Your task to perform on an android device: Go to privacy settings Image 0: 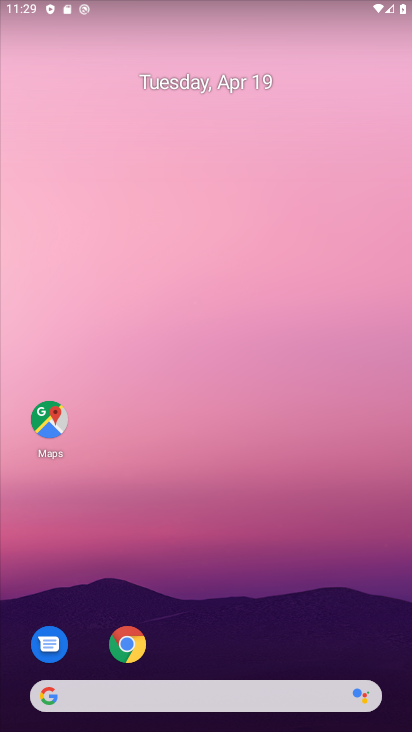
Step 0: drag from (215, 728) to (210, 139)
Your task to perform on an android device: Go to privacy settings Image 1: 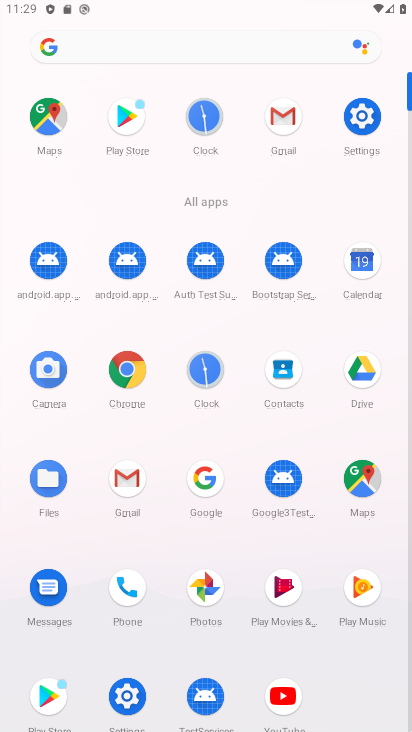
Step 1: click (357, 117)
Your task to perform on an android device: Go to privacy settings Image 2: 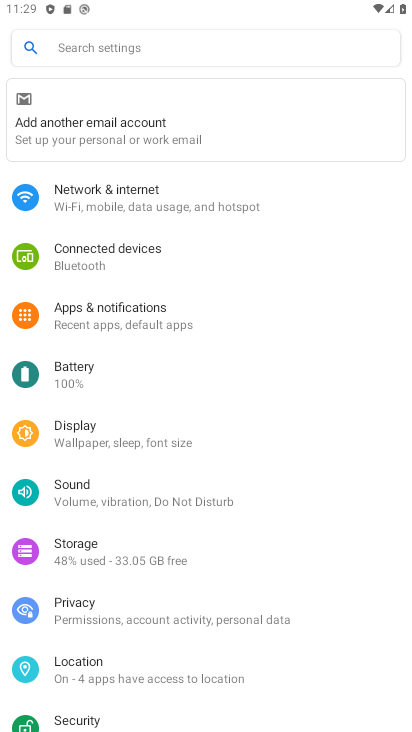
Step 2: drag from (122, 698) to (132, 426)
Your task to perform on an android device: Go to privacy settings Image 3: 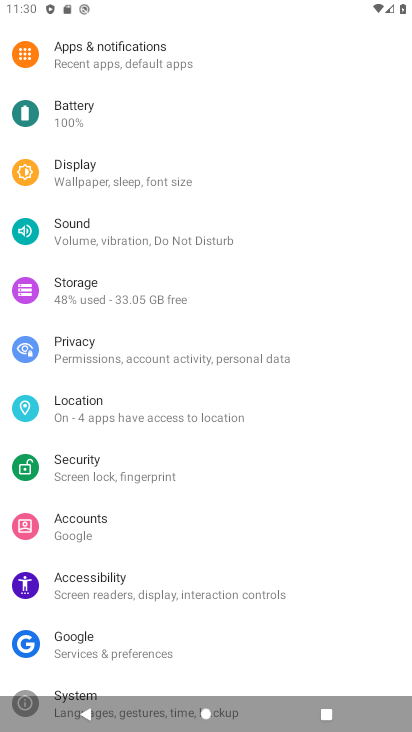
Step 3: click (84, 347)
Your task to perform on an android device: Go to privacy settings Image 4: 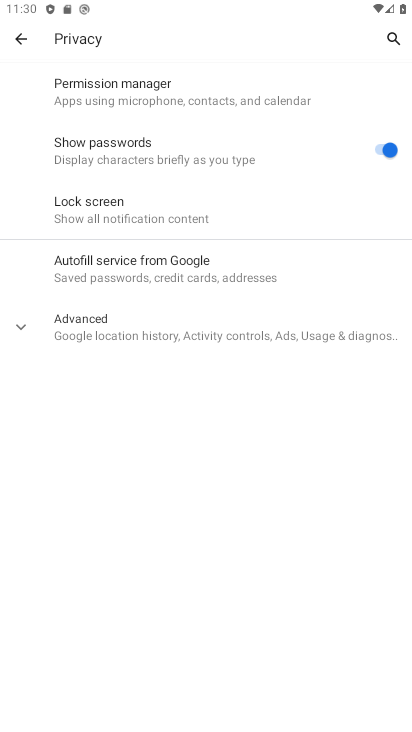
Step 4: task complete